Your task to perform on an android device: turn on airplane mode Image 0: 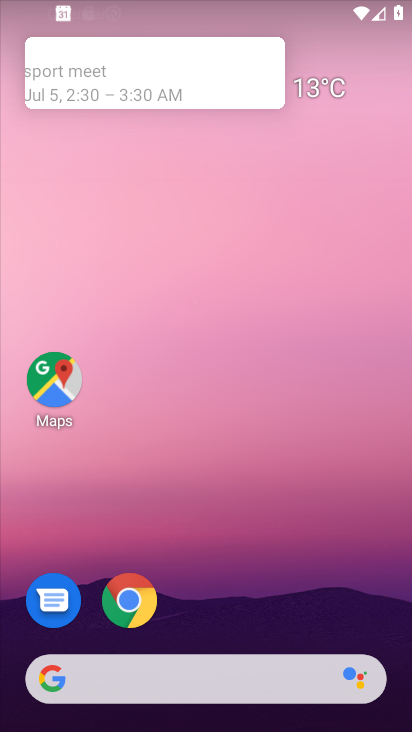
Step 0: drag from (275, 502) to (283, 56)
Your task to perform on an android device: turn on airplane mode Image 1: 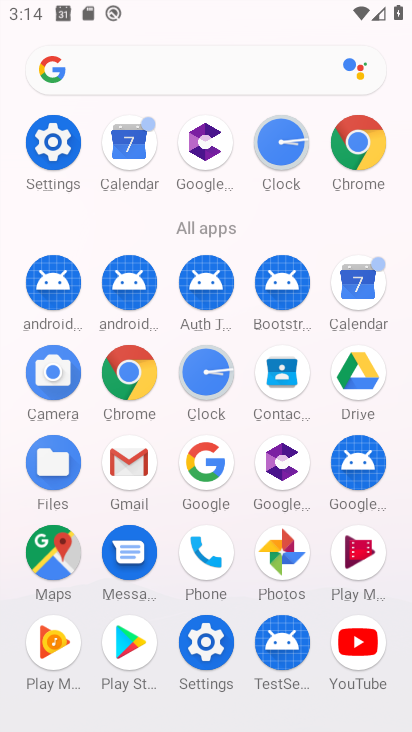
Step 1: click (69, 141)
Your task to perform on an android device: turn on airplane mode Image 2: 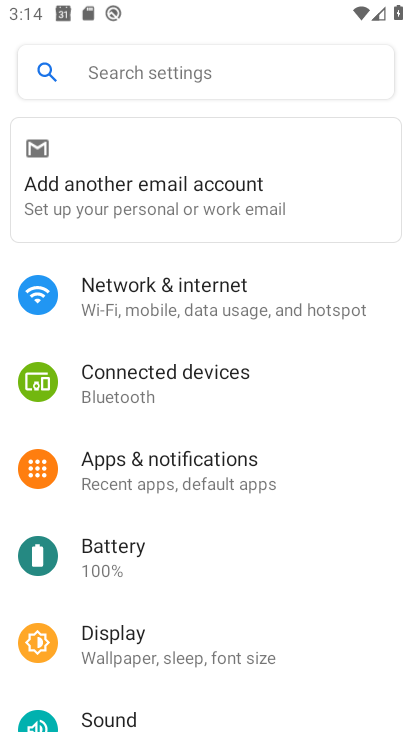
Step 2: click (203, 311)
Your task to perform on an android device: turn on airplane mode Image 3: 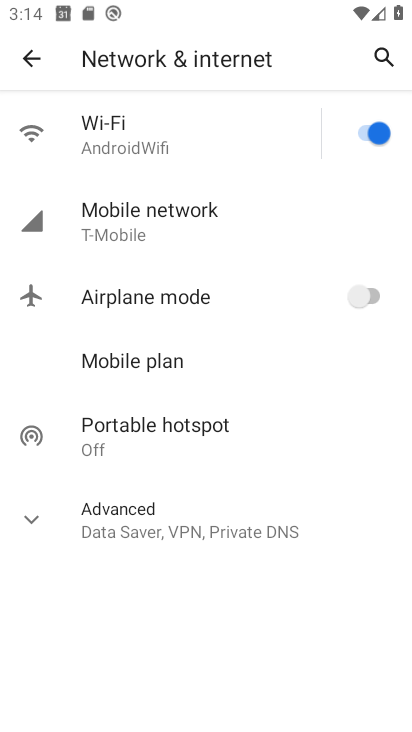
Step 3: click (357, 291)
Your task to perform on an android device: turn on airplane mode Image 4: 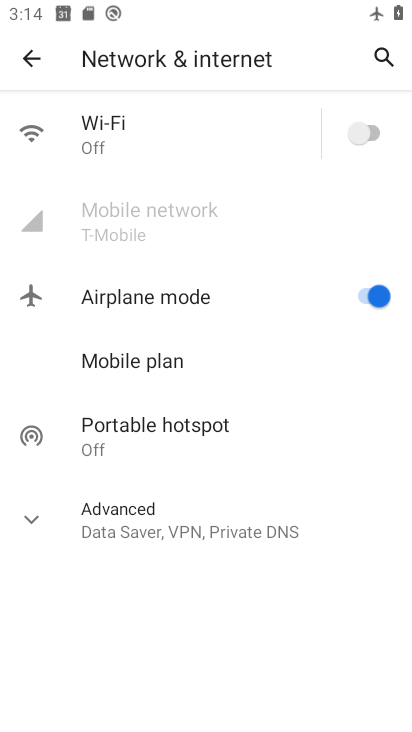
Step 4: task complete